Your task to perform on an android device: check out phone information Image 0: 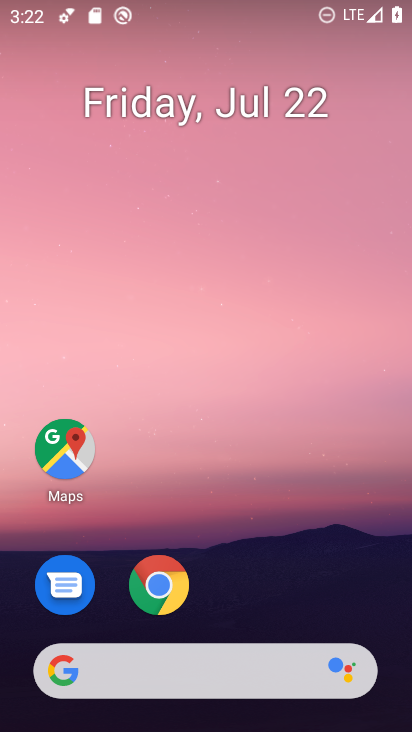
Step 0: drag from (278, 598) to (287, 84)
Your task to perform on an android device: check out phone information Image 1: 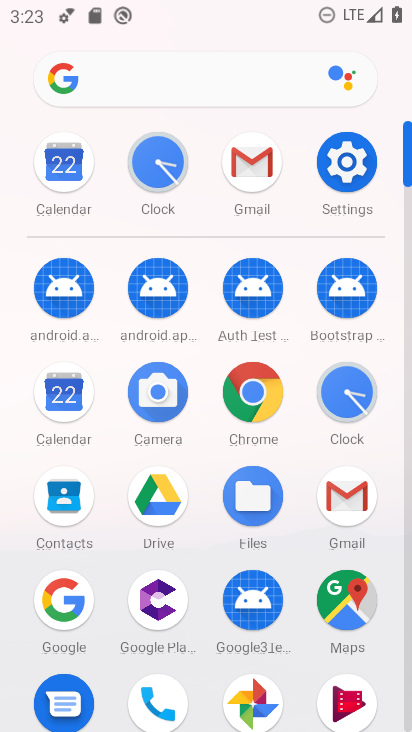
Step 1: drag from (217, 559) to (235, 223)
Your task to perform on an android device: check out phone information Image 2: 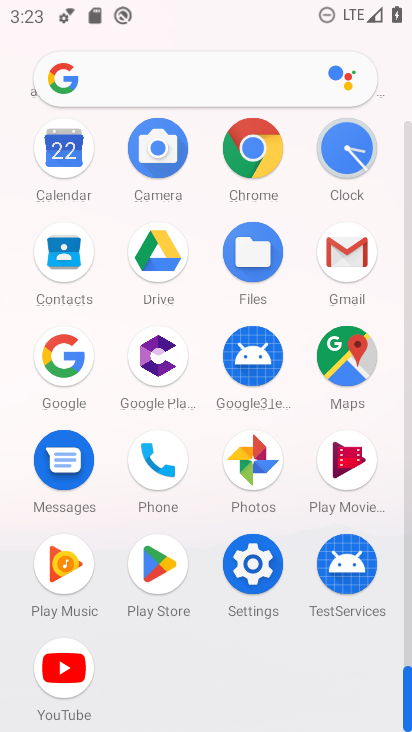
Step 2: click (168, 458)
Your task to perform on an android device: check out phone information Image 3: 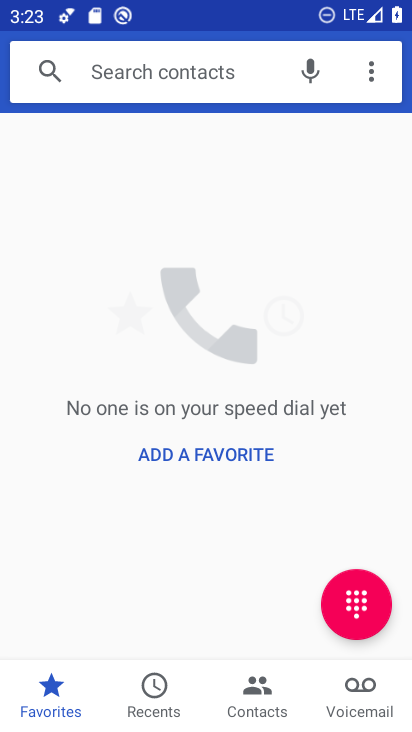
Step 3: click (368, 68)
Your task to perform on an android device: check out phone information Image 4: 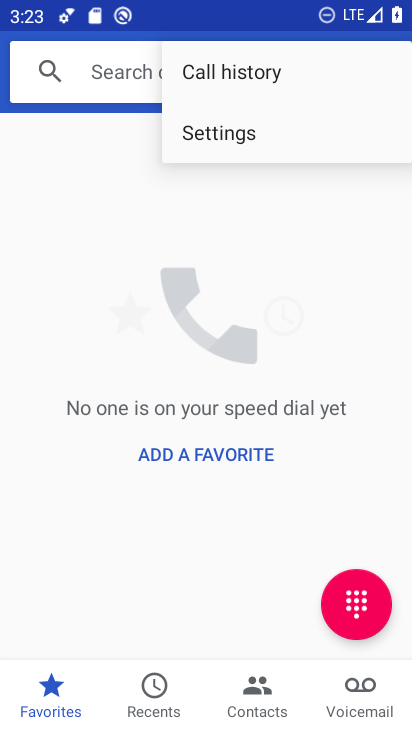
Step 4: click (248, 123)
Your task to perform on an android device: check out phone information Image 5: 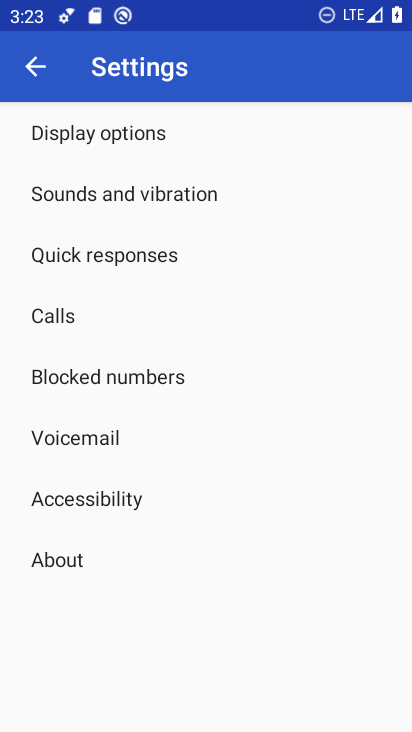
Step 5: click (64, 563)
Your task to perform on an android device: check out phone information Image 6: 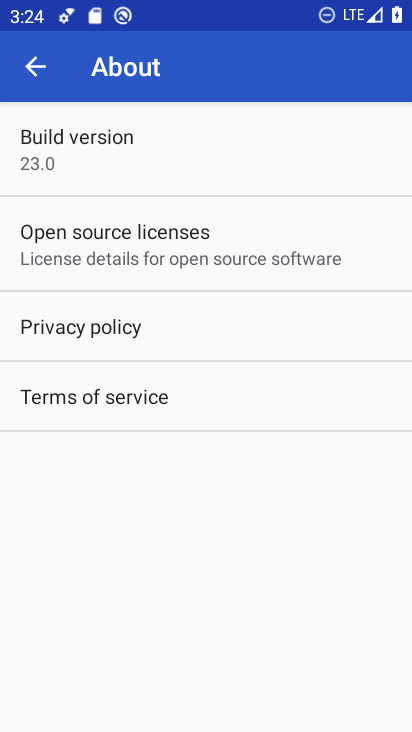
Step 6: task complete